Your task to perform on an android device: Open maps Image 0: 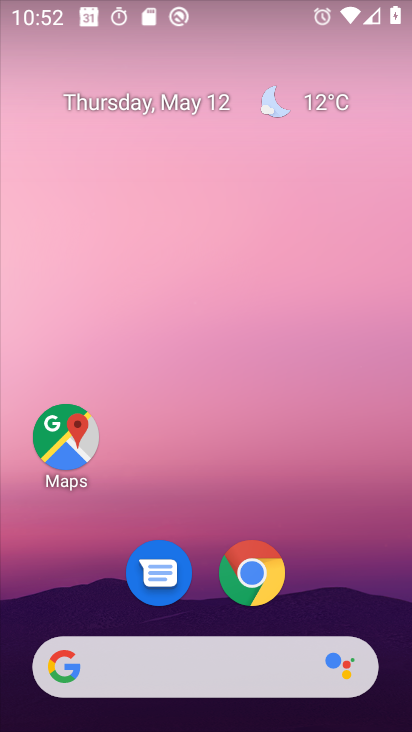
Step 0: click (71, 416)
Your task to perform on an android device: Open maps Image 1: 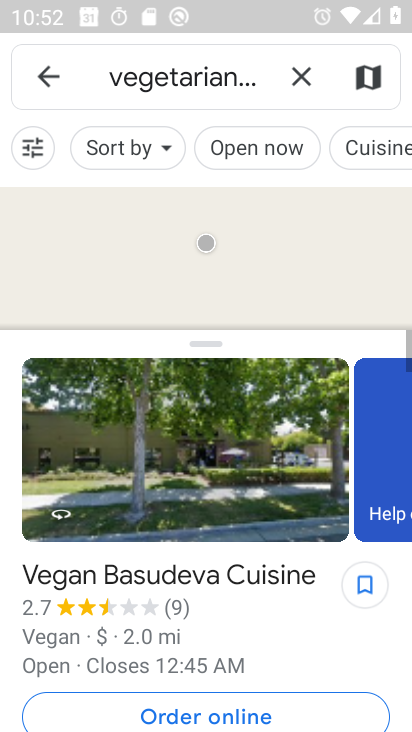
Step 1: task complete